Your task to perform on an android device: When is my next appointment? Image 0: 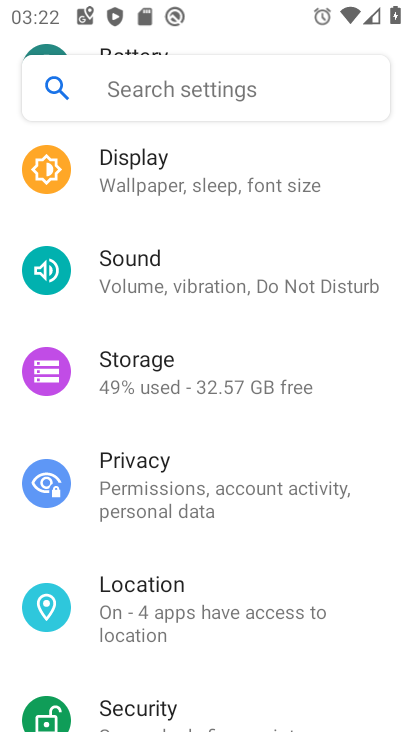
Step 0: press home button
Your task to perform on an android device: When is my next appointment? Image 1: 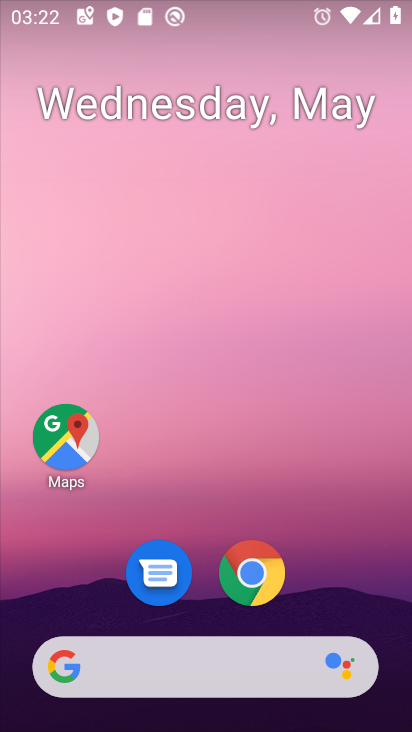
Step 1: drag from (238, 711) to (233, 85)
Your task to perform on an android device: When is my next appointment? Image 2: 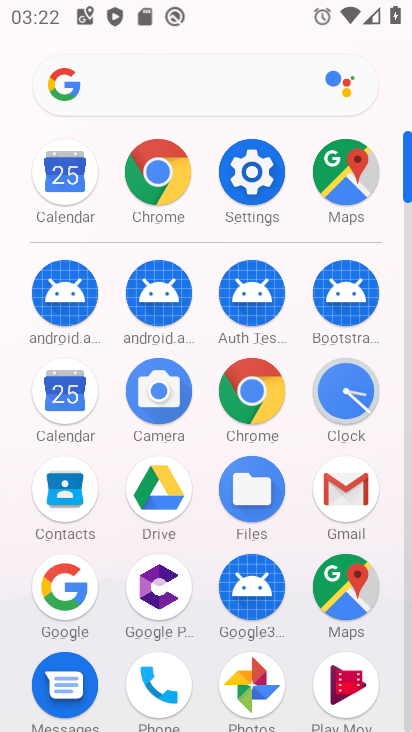
Step 2: click (58, 400)
Your task to perform on an android device: When is my next appointment? Image 3: 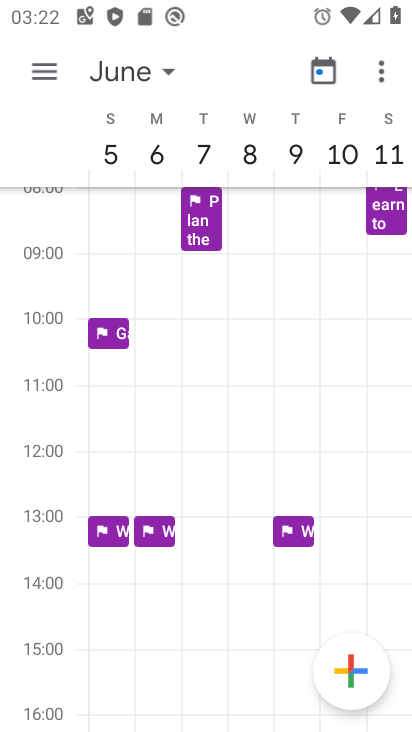
Step 3: click (171, 70)
Your task to perform on an android device: When is my next appointment? Image 4: 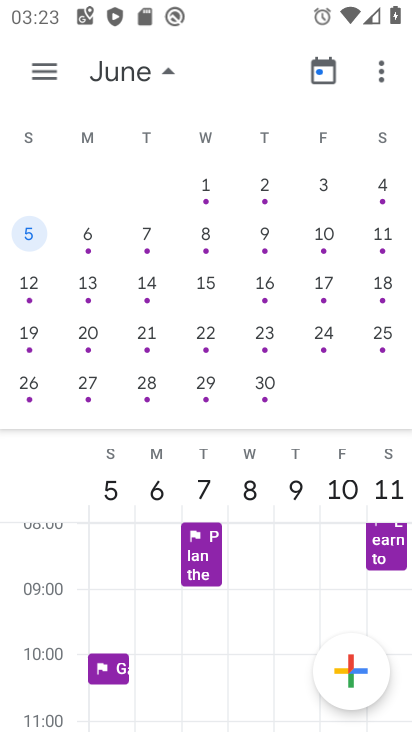
Step 4: drag from (33, 277) to (368, 192)
Your task to perform on an android device: When is my next appointment? Image 5: 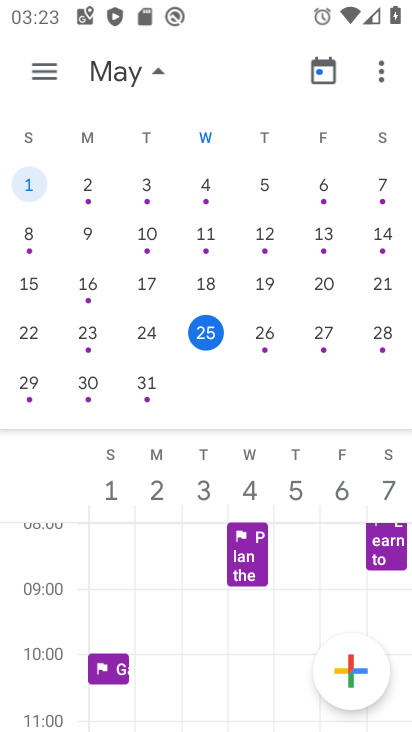
Step 5: click (260, 329)
Your task to perform on an android device: When is my next appointment? Image 6: 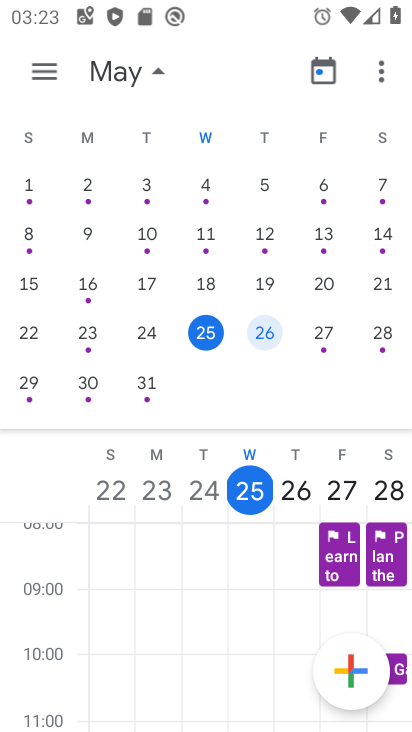
Step 6: click (296, 472)
Your task to perform on an android device: When is my next appointment? Image 7: 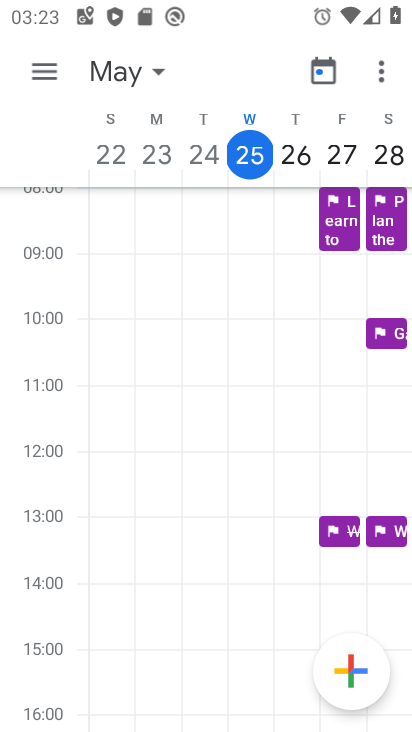
Step 7: click (298, 154)
Your task to perform on an android device: When is my next appointment? Image 8: 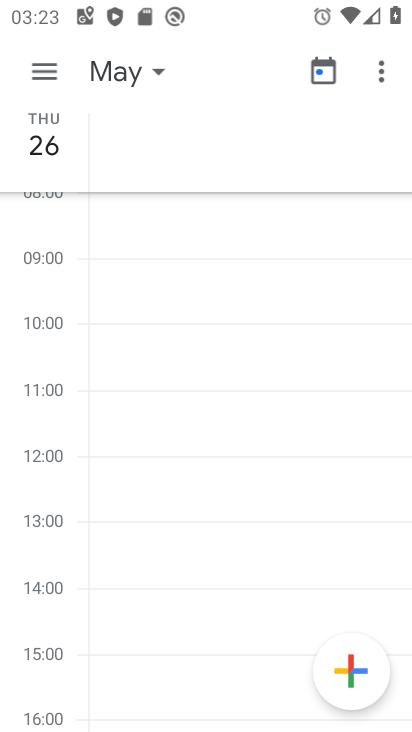
Step 8: task complete